Your task to perform on an android device: find which apps use the phone's location Image 0: 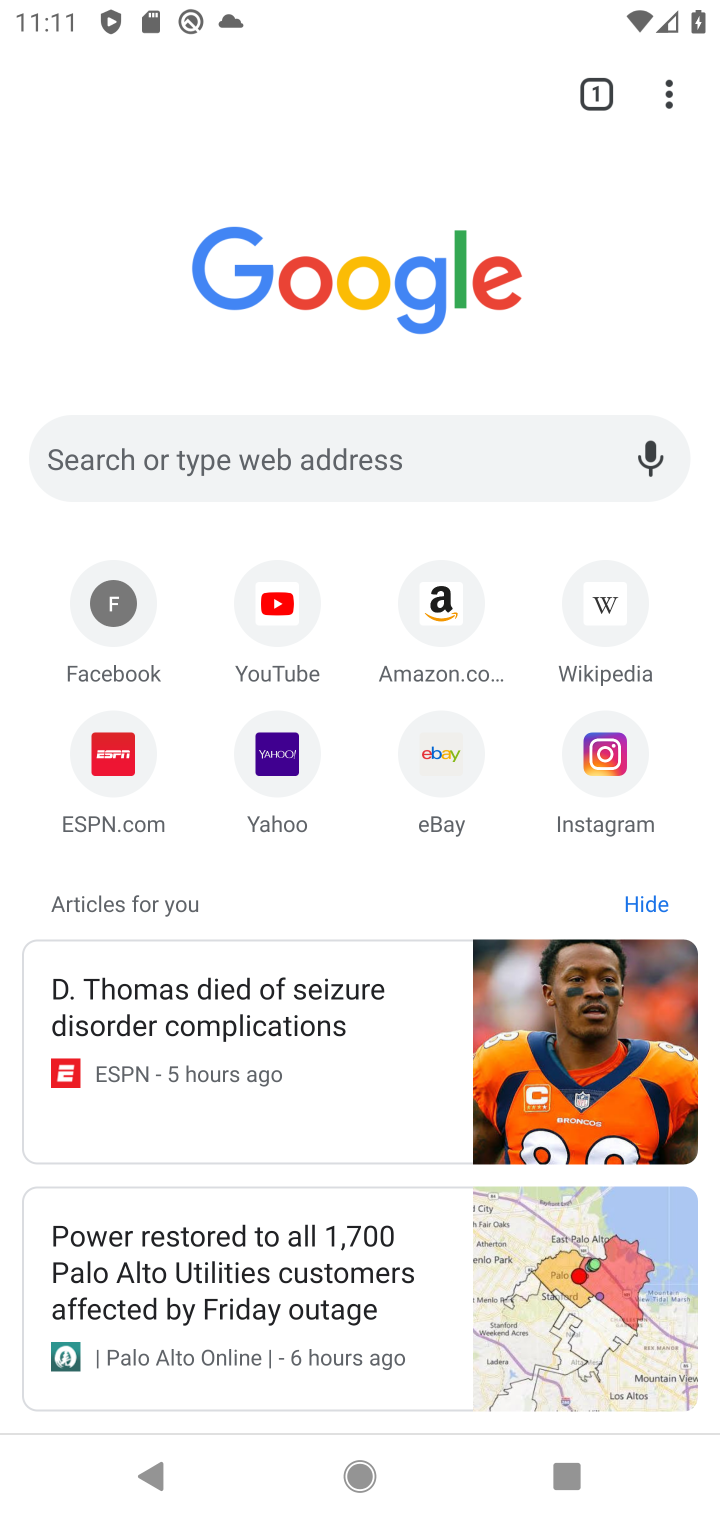
Step 0: press home button
Your task to perform on an android device: find which apps use the phone's location Image 1: 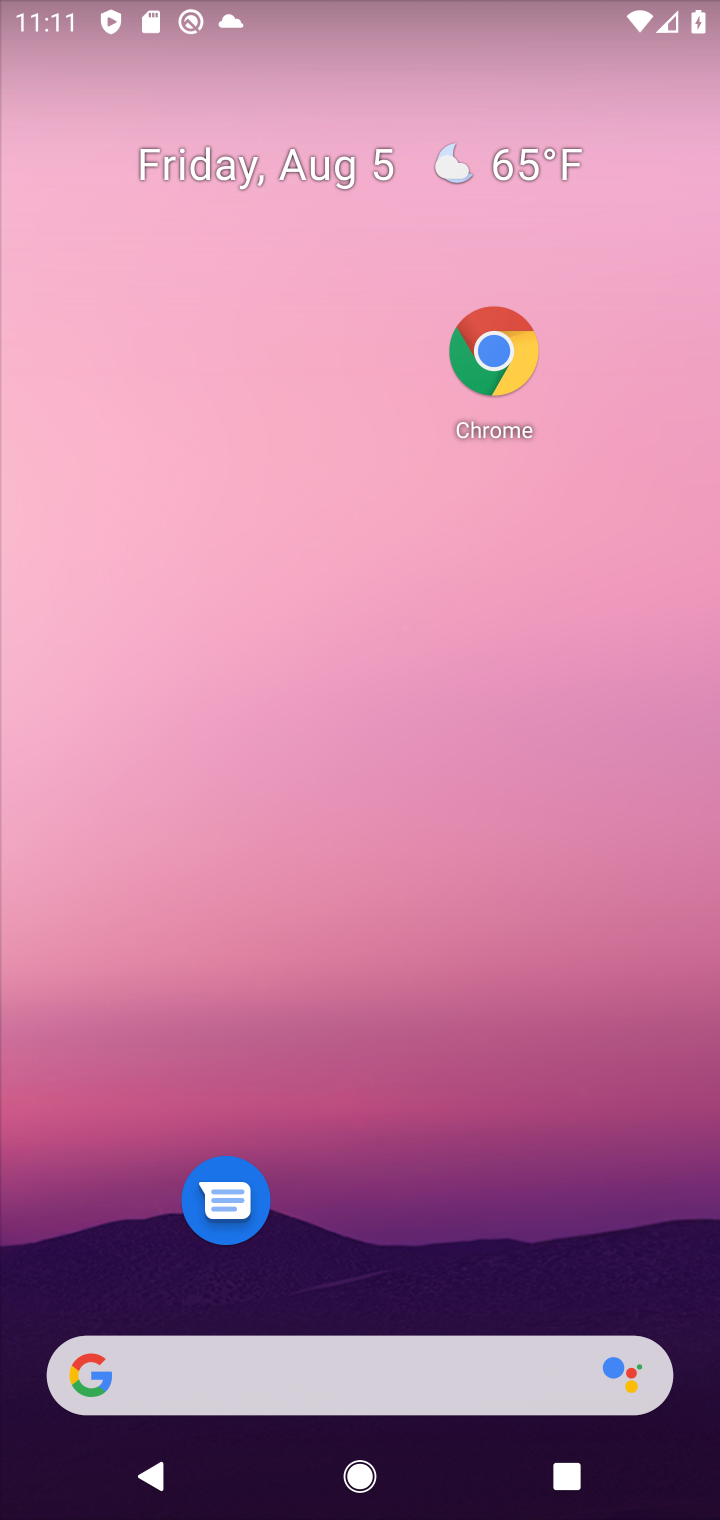
Step 1: drag from (420, 1245) to (477, 281)
Your task to perform on an android device: find which apps use the phone's location Image 2: 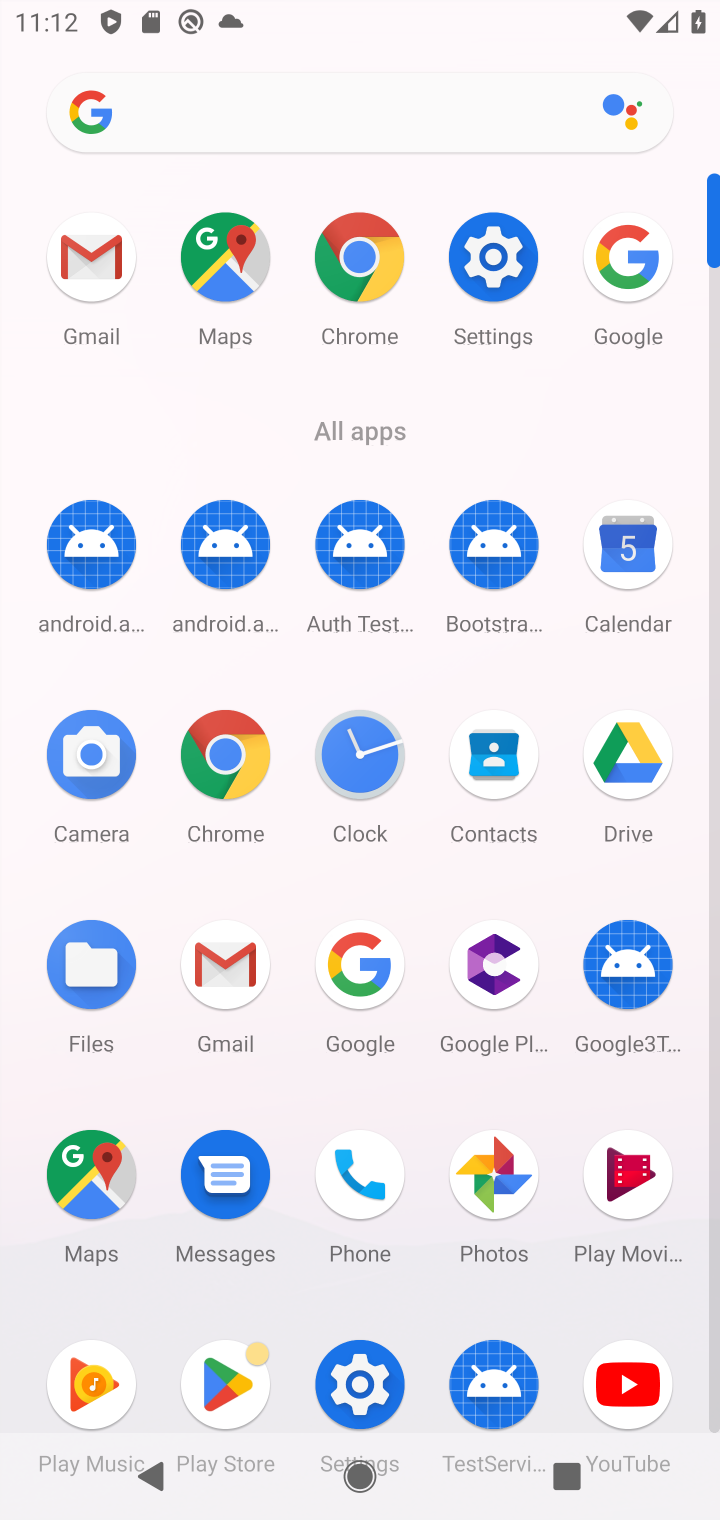
Step 2: click (498, 299)
Your task to perform on an android device: find which apps use the phone's location Image 3: 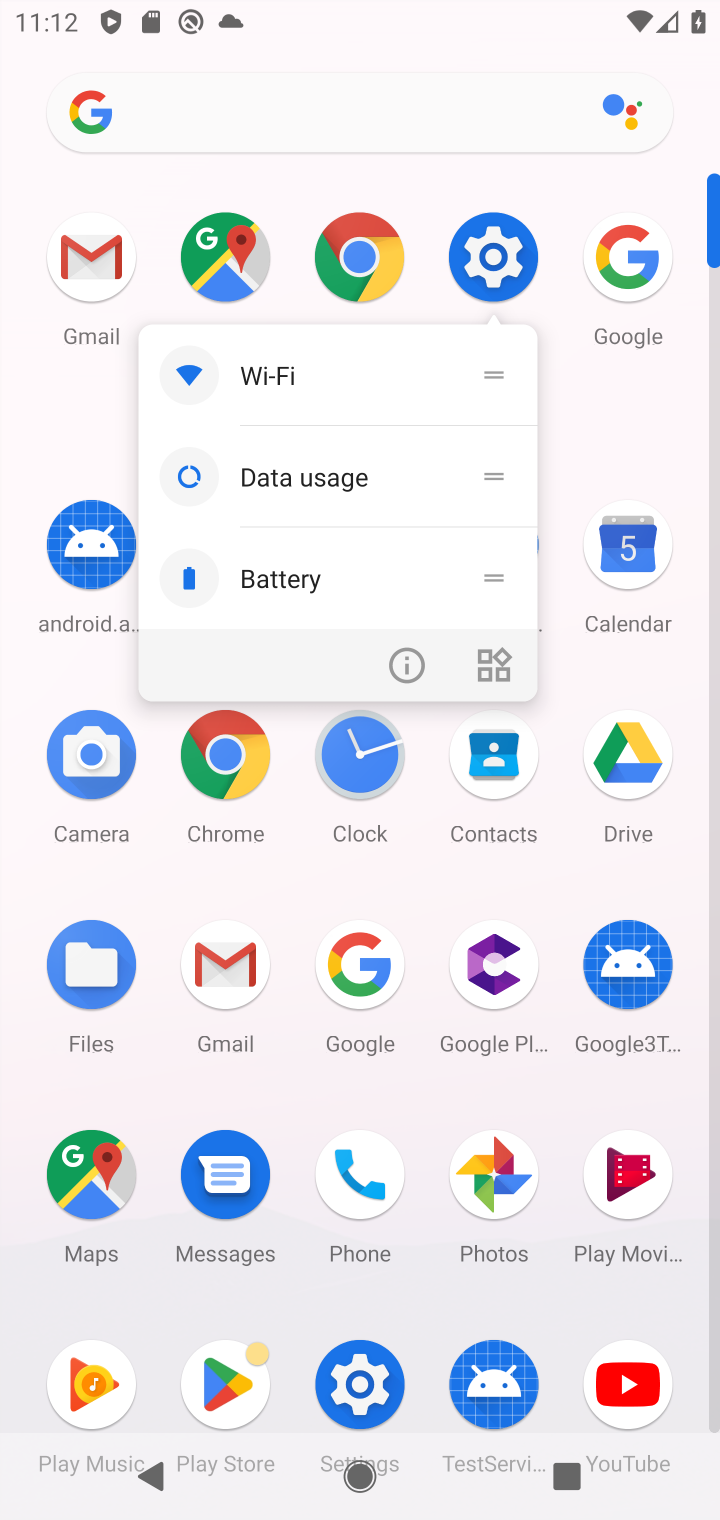
Step 3: click (494, 274)
Your task to perform on an android device: find which apps use the phone's location Image 4: 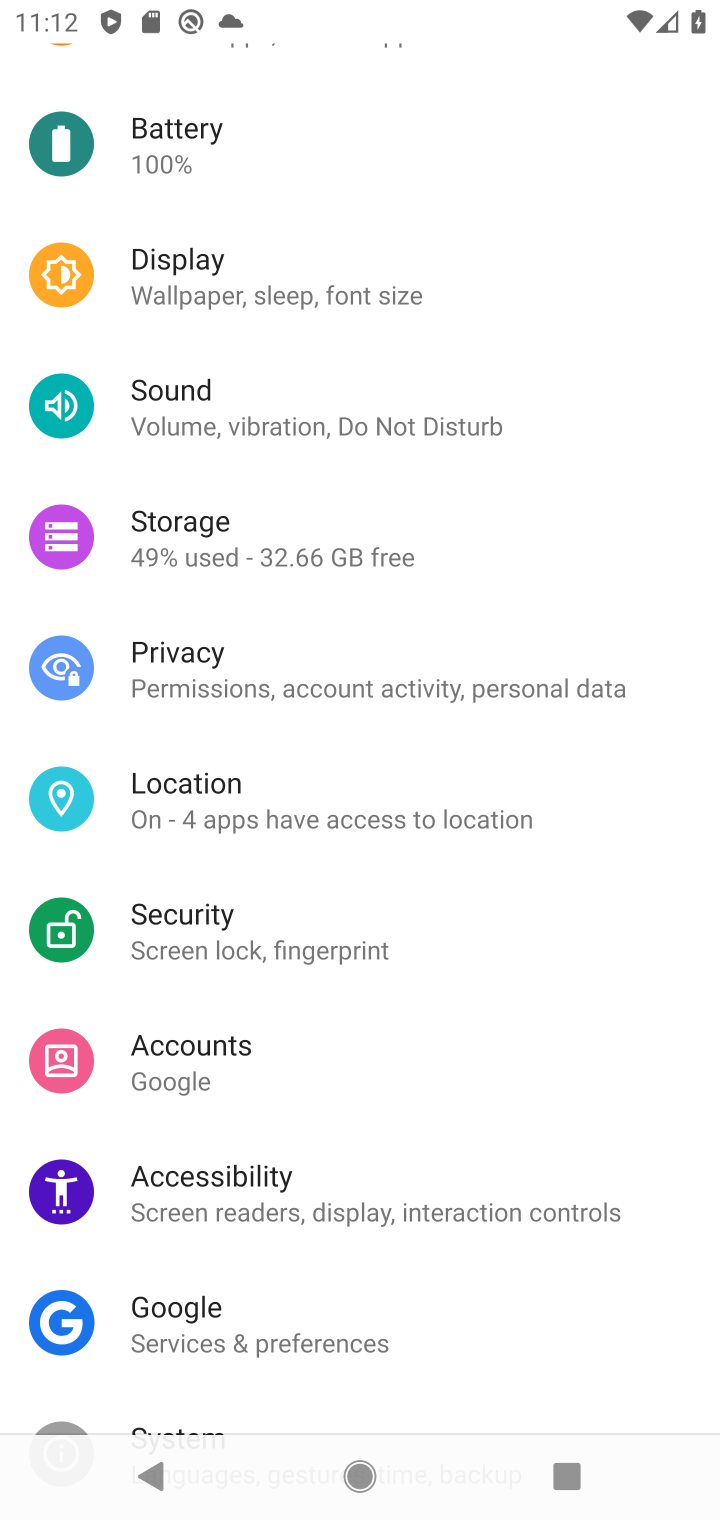
Step 4: drag from (352, 1160) to (391, 694)
Your task to perform on an android device: find which apps use the phone's location Image 5: 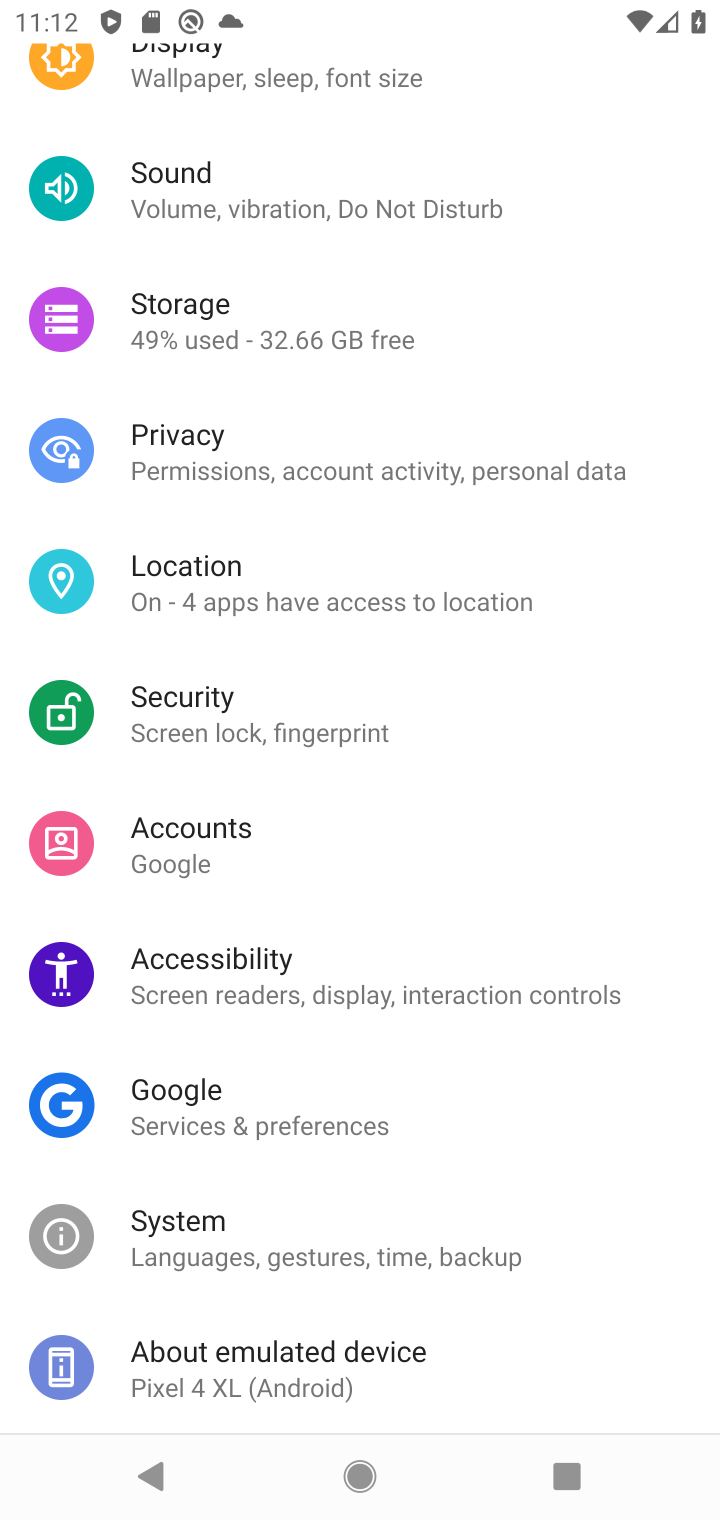
Step 5: drag from (348, 1170) to (451, 567)
Your task to perform on an android device: find which apps use the phone's location Image 6: 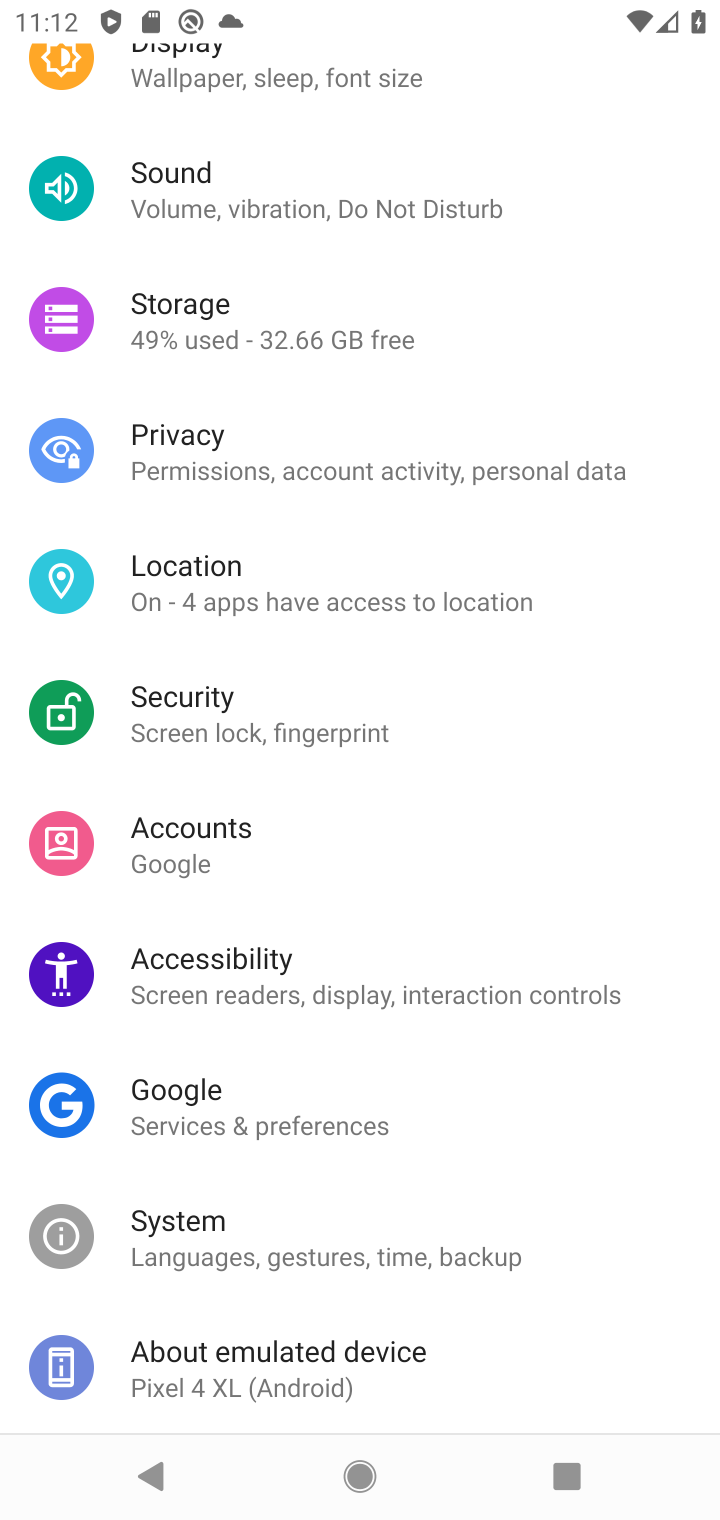
Step 6: click (363, 606)
Your task to perform on an android device: find which apps use the phone's location Image 7: 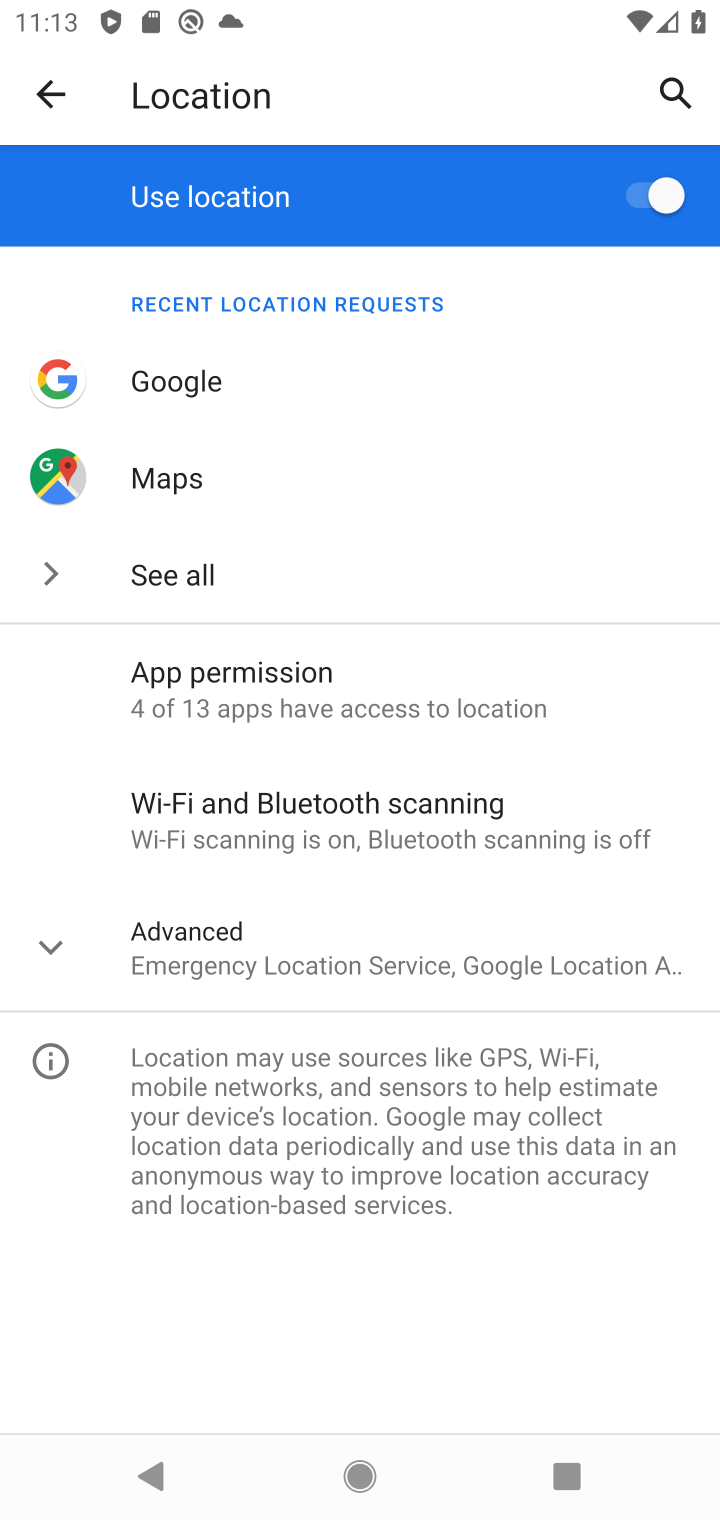
Step 7: click (385, 706)
Your task to perform on an android device: find which apps use the phone's location Image 8: 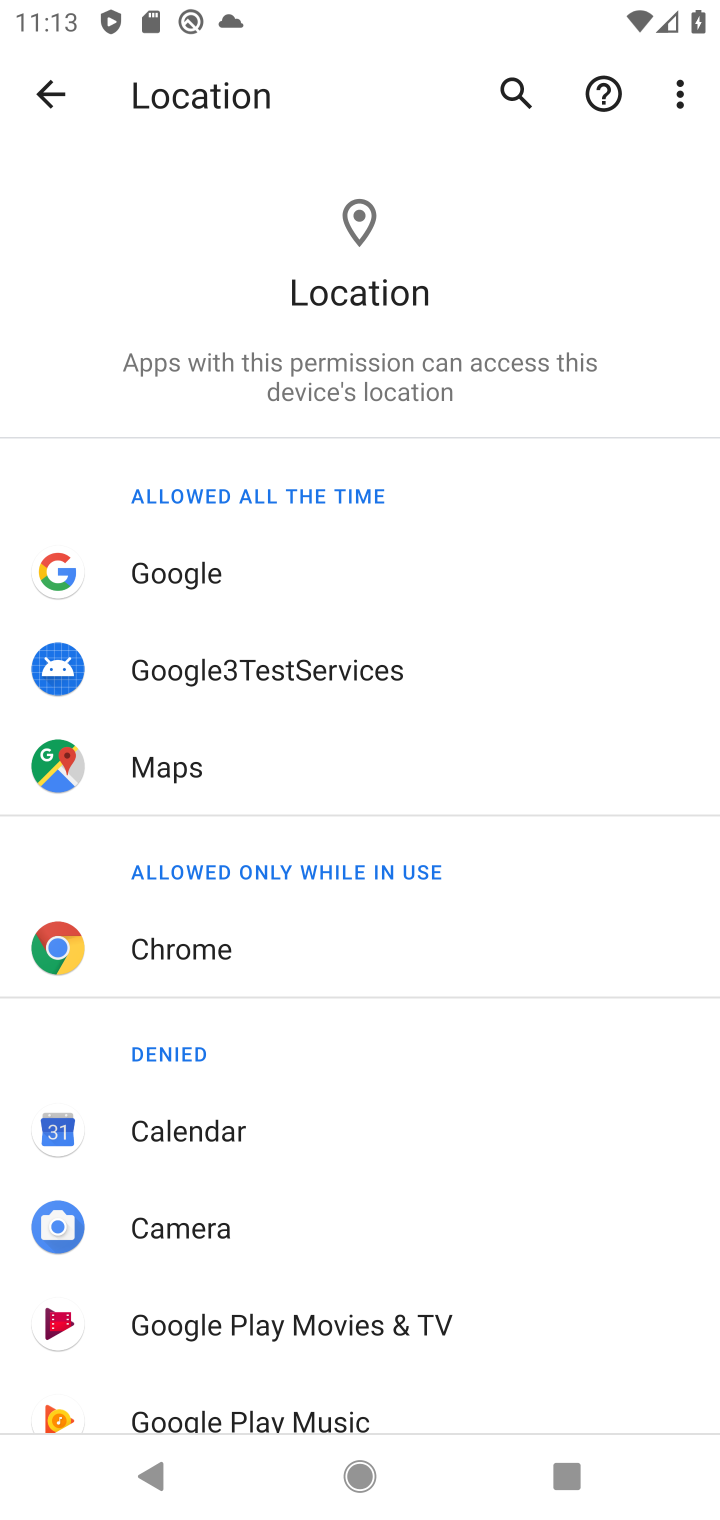
Step 8: task complete